Your task to perform on an android device: Show me the alarms in the clock app Image 0: 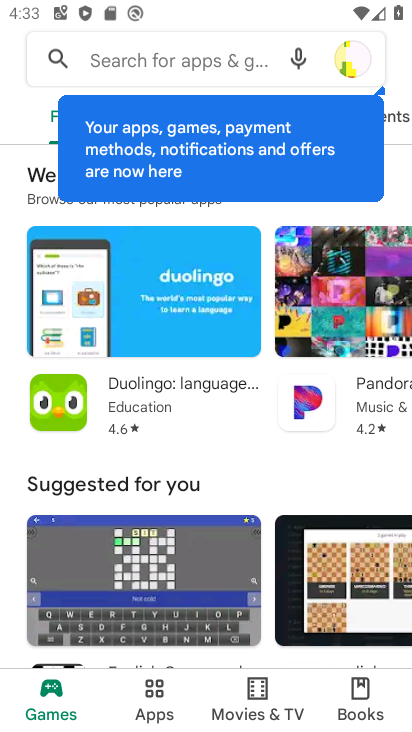
Step 0: drag from (203, 235) to (175, 110)
Your task to perform on an android device: Show me the alarms in the clock app Image 1: 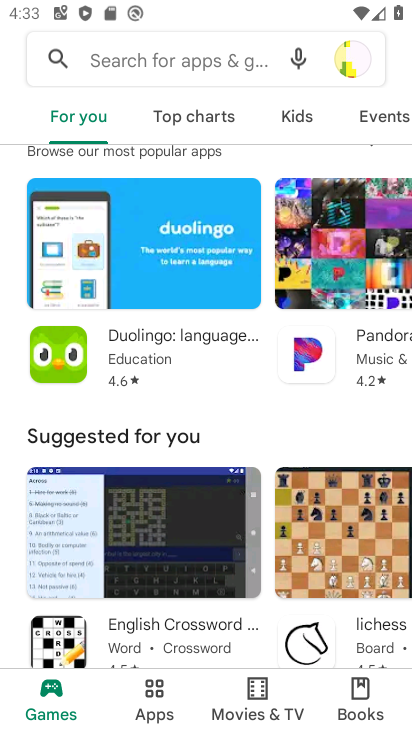
Step 1: drag from (259, 493) to (269, 262)
Your task to perform on an android device: Show me the alarms in the clock app Image 2: 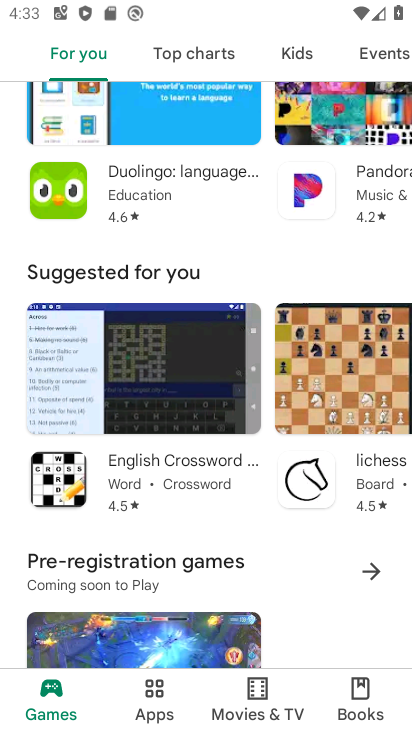
Step 2: press home button
Your task to perform on an android device: Show me the alarms in the clock app Image 3: 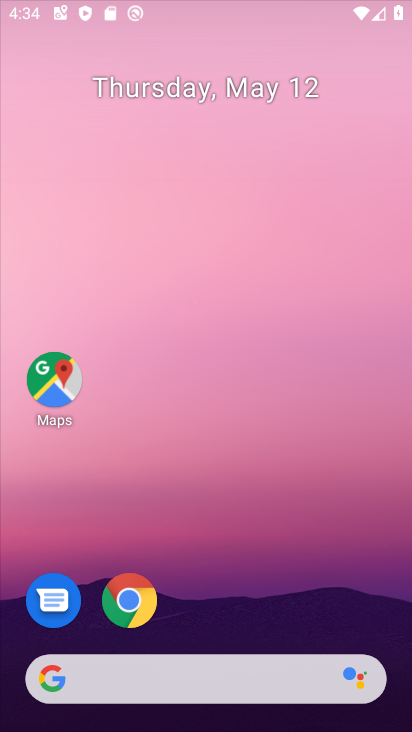
Step 3: drag from (202, 641) to (339, 195)
Your task to perform on an android device: Show me the alarms in the clock app Image 4: 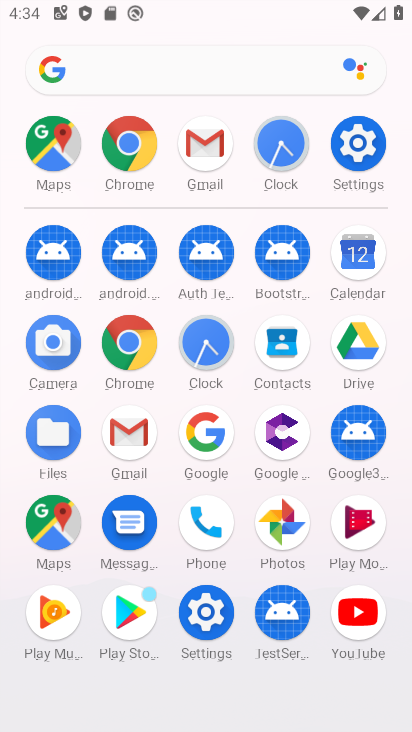
Step 4: click (207, 358)
Your task to perform on an android device: Show me the alarms in the clock app Image 5: 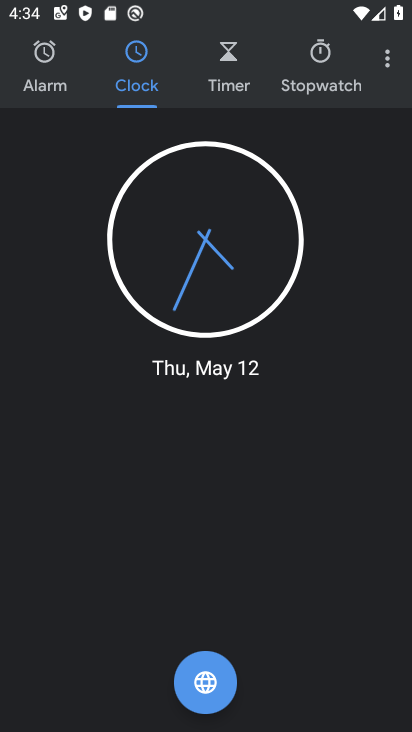
Step 5: click (392, 61)
Your task to perform on an android device: Show me the alarms in the clock app Image 6: 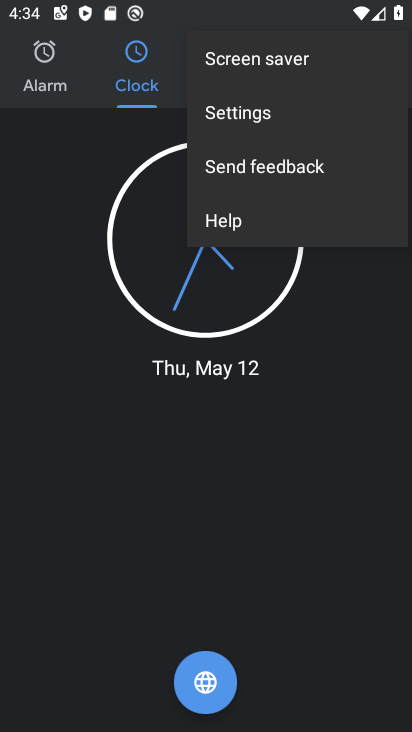
Step 6: click (45, 69)
Your task to perform on an android device: Show me the alarms in the clock app Image 7: 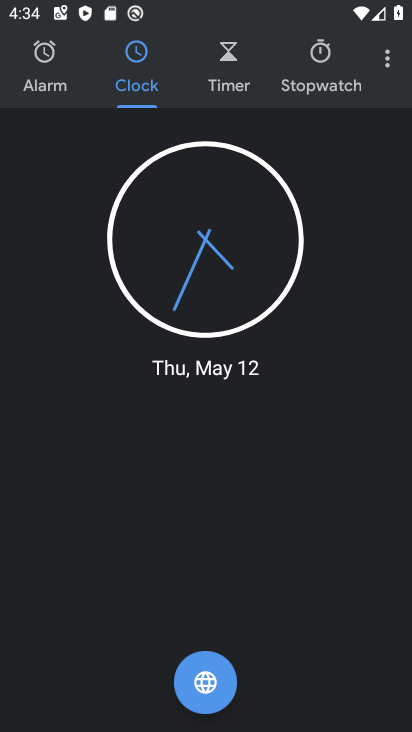
Step 7: click (41, 68)
Your task to perform on an android device: Show me the alarms in the clock app Image 8: 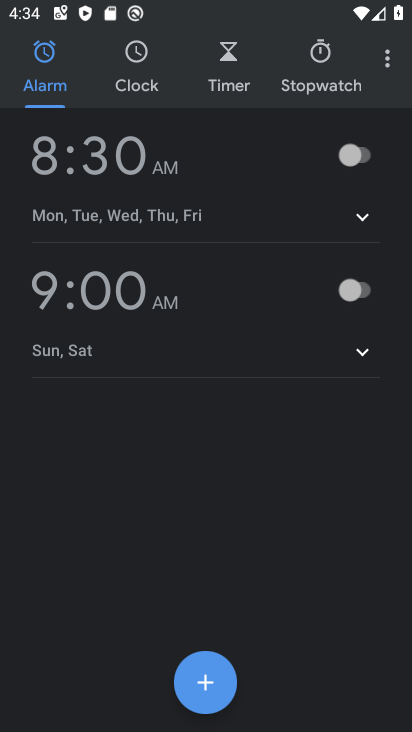
Step 8: task complete